Your task to perform on an android device: find which apps use the phone's location Image 0: 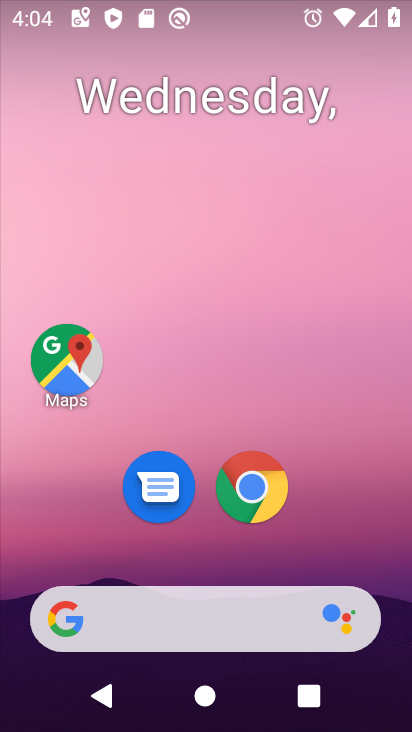
Step 0: drag from (323, 543) to (325, 188)
Your task to perform on an android device: find which apps use the phone's location Image 1: 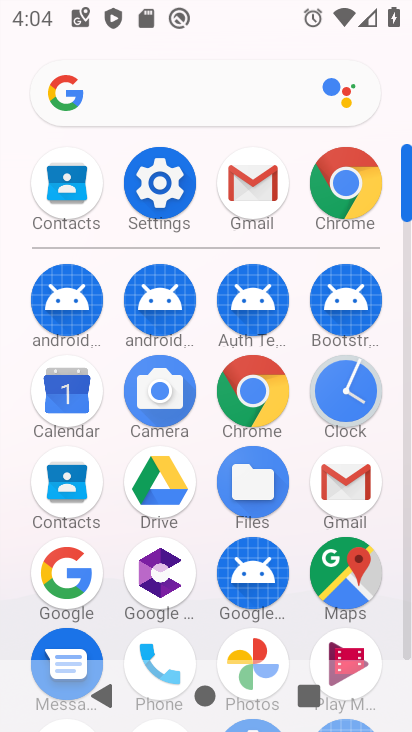
Step 1: click (173, 203)
Your task to perform on an android device: find which apps use the phone's location Image 2: 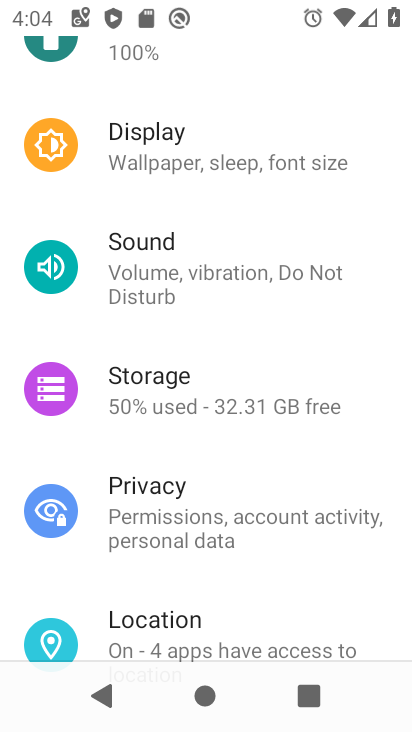
Step 2: drag from (354, 545) to (367, 357)
Your task to perform on an android device: find which apps use the phone's location Image 3: 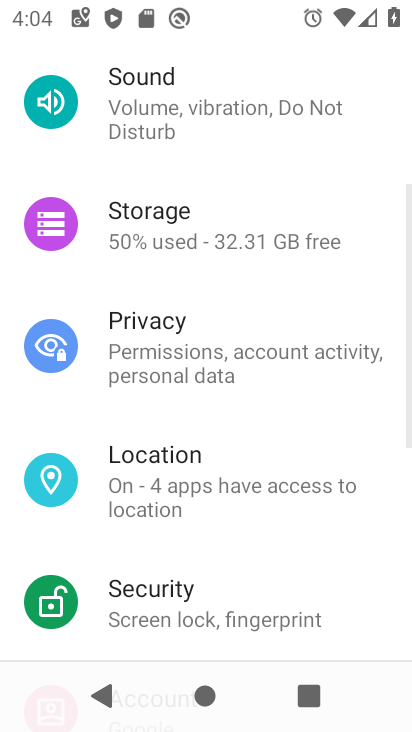
Step 3: click (328, 483)
Your task to perform on an android device: find which apps use the phone's location Image 4: 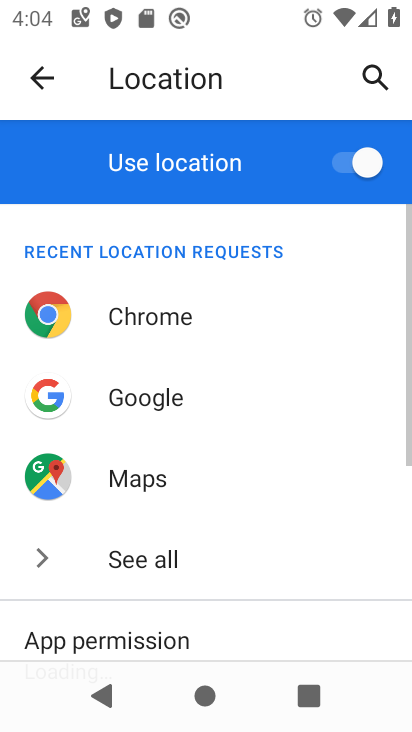
Step 4: drag from (261, 537) to (266, 337)
Your task to perform on an android device: find which apps use the phone's location Image 5: 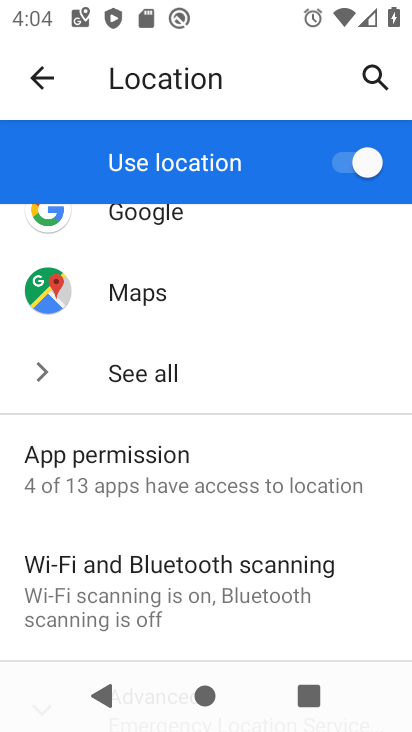
Step 5: click (258, 473)
Your task to perform on an android device: find which apps use the phone's location Image 6: 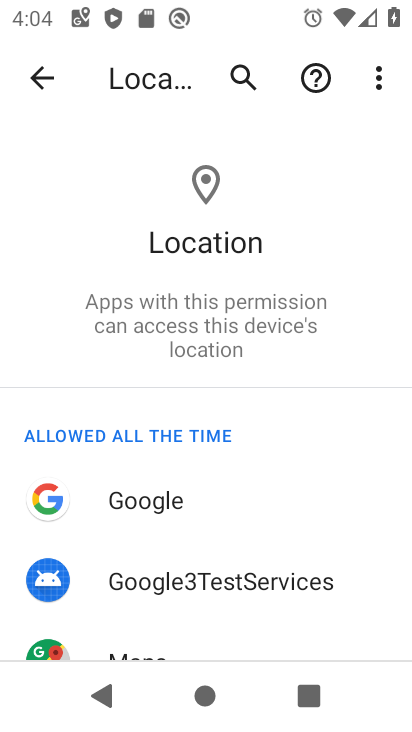
Step 6: drag from (280, 534) to (285, 344)
Your task to perform on an android device: find which apps use the phone's location Image 7: 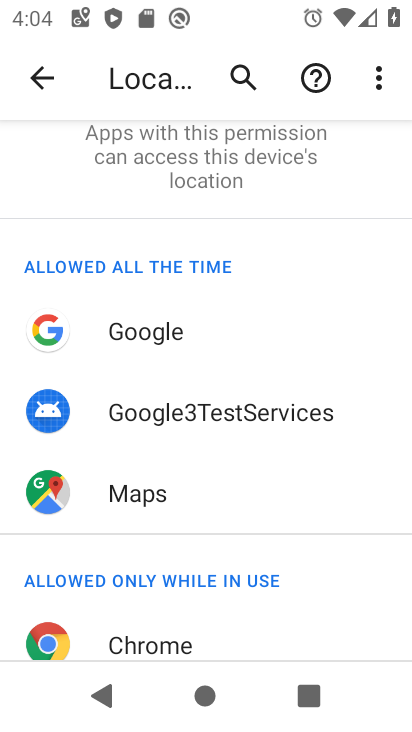
Step 7: drag from (297, 563) to (301, 349)
Your task to perform on an android device: find which apps use the phone's location Image 8: 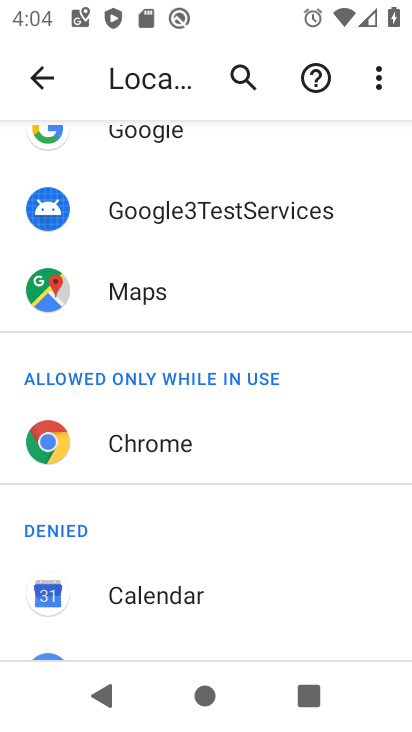
Step 8: drag from (309, 537) to (310, 339)
Your task to perform on an android device: find which apps use the phone's location Image 9: 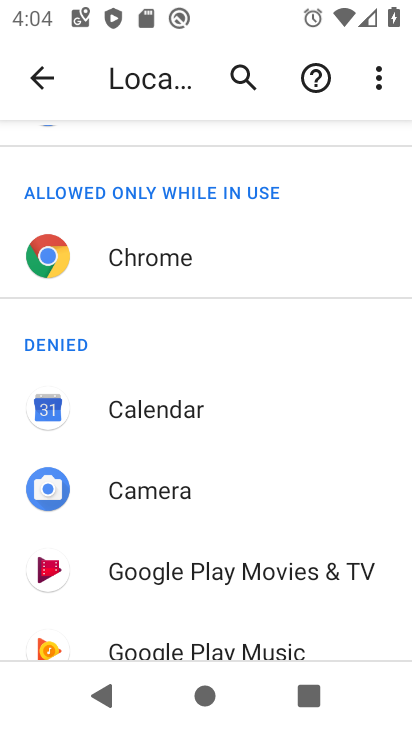
Step 9: drag from (312, 602) to (319, 373)
Your task to perform on an android device: find which apps use the phone's location Image 10: 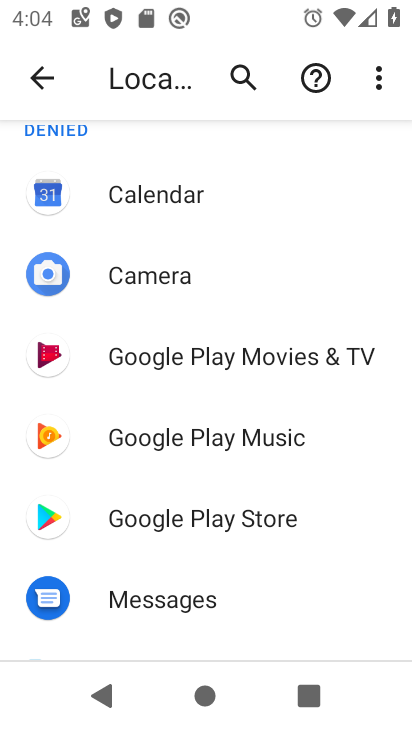
Step 10: drag from (341, 619) to (341, 417)
Your task to perform on an android device: find which apps use the phone's location Image 11: 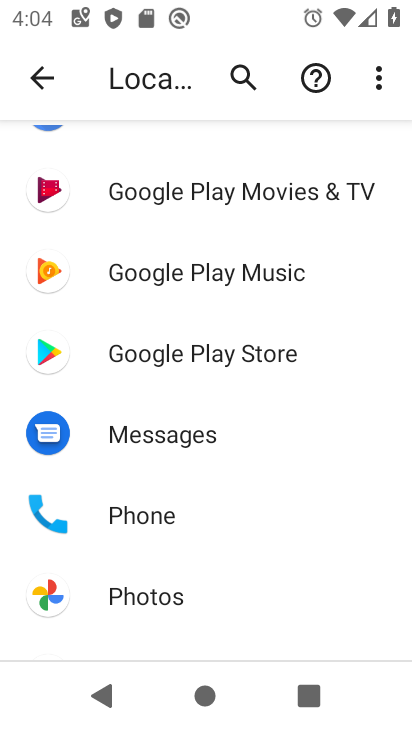
Step 11: click (240, 612)
Your task to perform on an android device: find which apps use the phone's location Image 12: 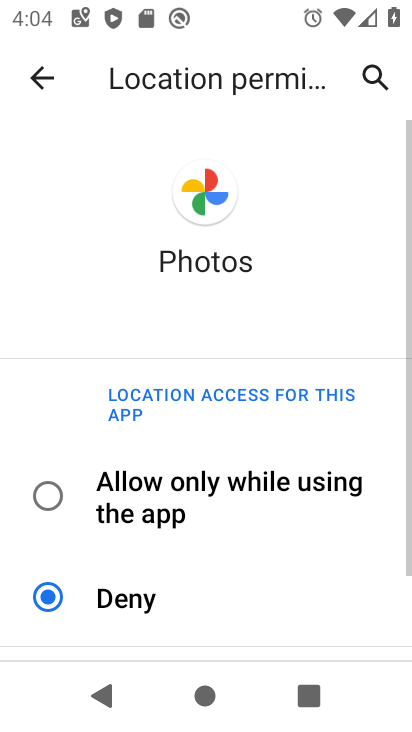
Step 12: click (197, 502)
Your task to perform on an android device: find which apps use the phone's location Image 13: 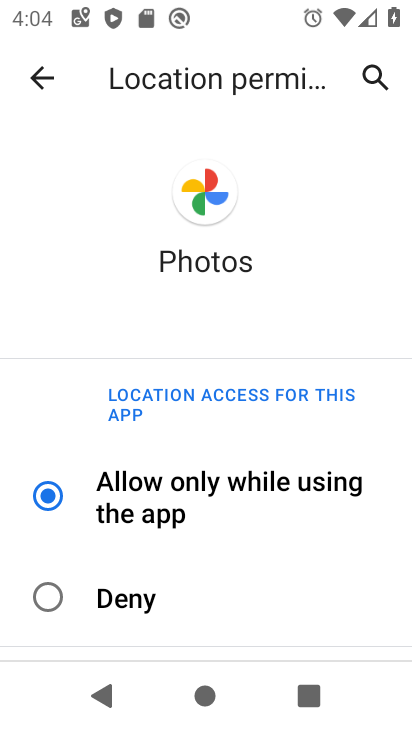
Step 13: task complete